Your task to perform on an android device: toggle location history Image 0: 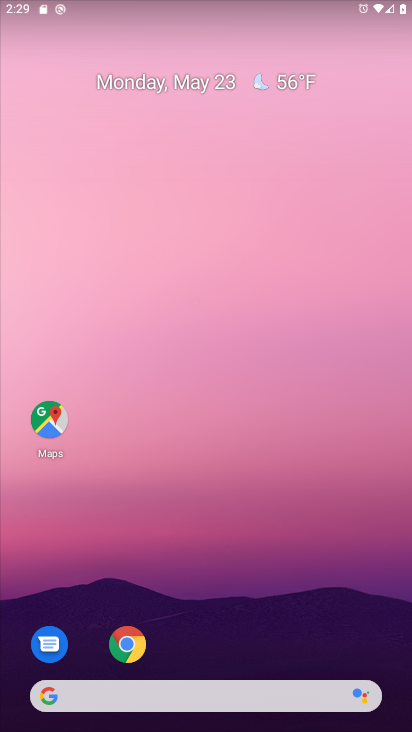
Step 0: drag from (219, 606) to (150, 161)
Your task to perform on an android device: toggle location history Image 1: 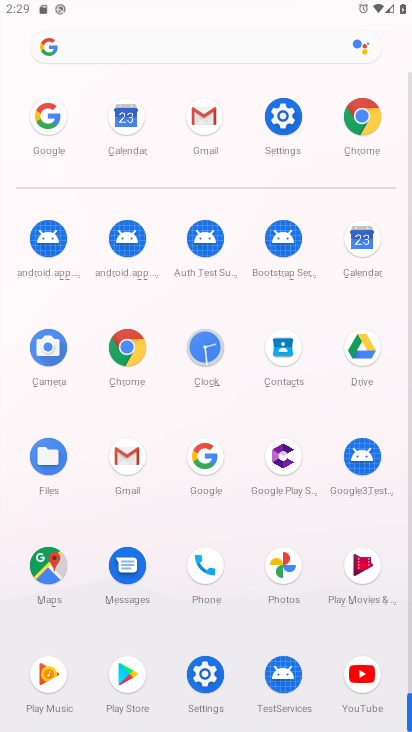
Step 1: click (280, 127)
Your task to perform on an android device: toggle location history Image 2: 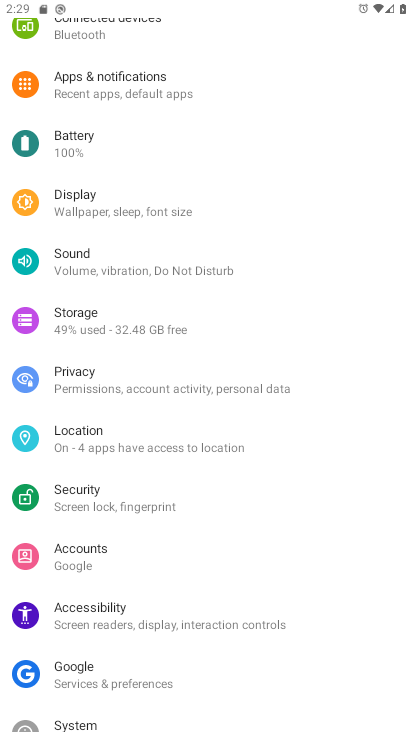
Step 2: click (86, 449)
Your task to perform on an android device: toggle location history Image 3: 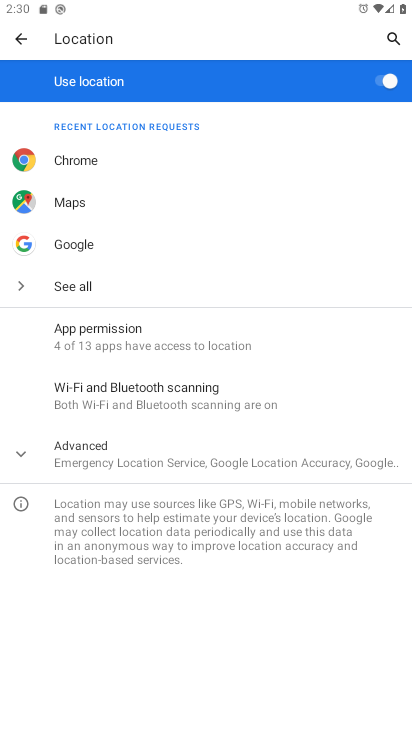
Step 3: click (113, 471)
Your task to perform on an android device: toggle location history Image 4: 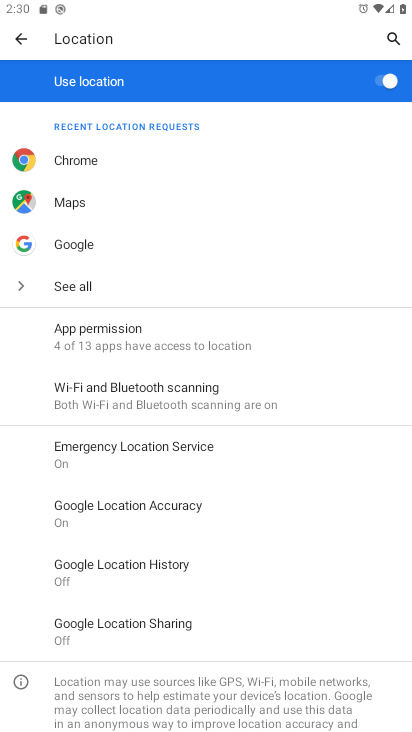
Step 4: click (159, 568)
Your task to perform on an android device: toggle location history Image 5: 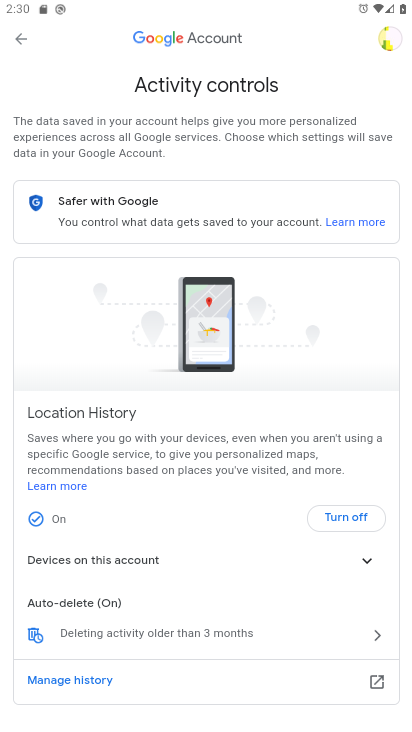
Step 5: click (359, 521)
Your task to perform on an android device: toggle location history Image 6: 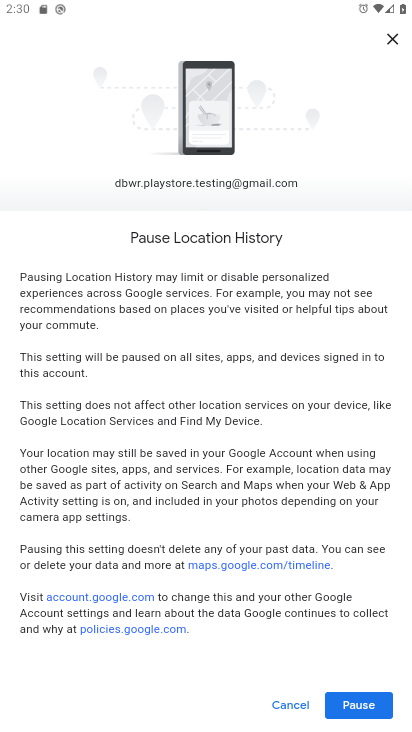
Step 6: click (360, 718)
Your task to perform on an android device: toggle location history Image 7: 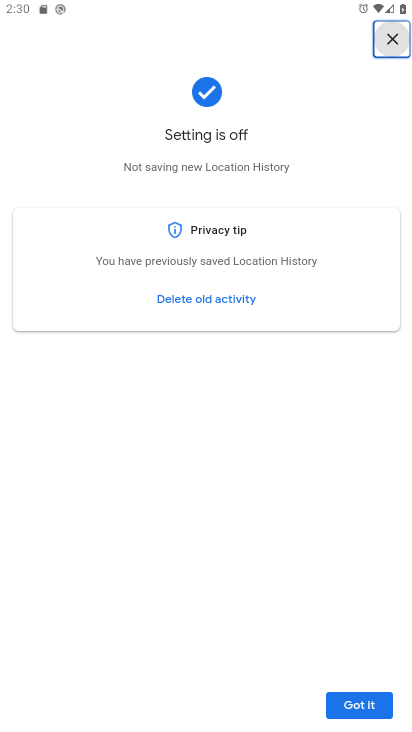
Step 7: click (364, 711)
Your task to perform on an android device: toggle location history Image 8: 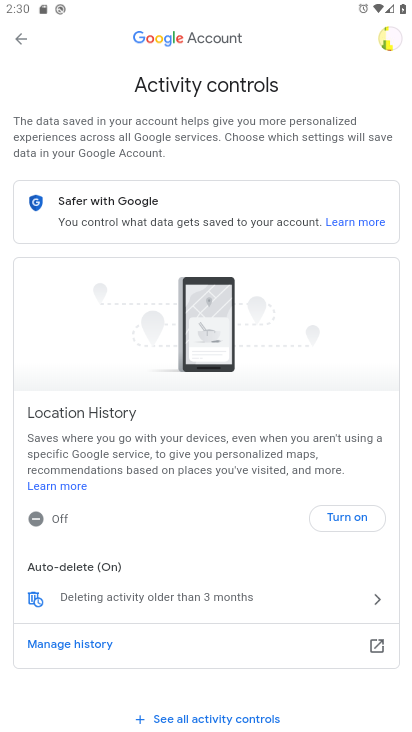
Step 8: task complete